Your task to perform on an android device: find which apps use the phone's location Image 0: 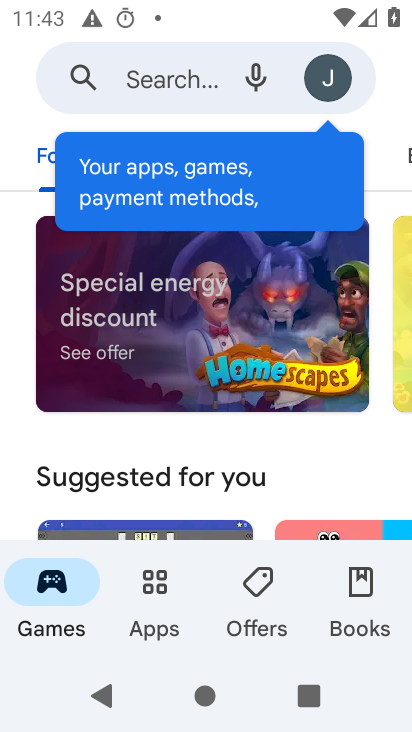
Step 0: press back button
Your task to perform on an android device: find which apps use the phone's location Image 1: 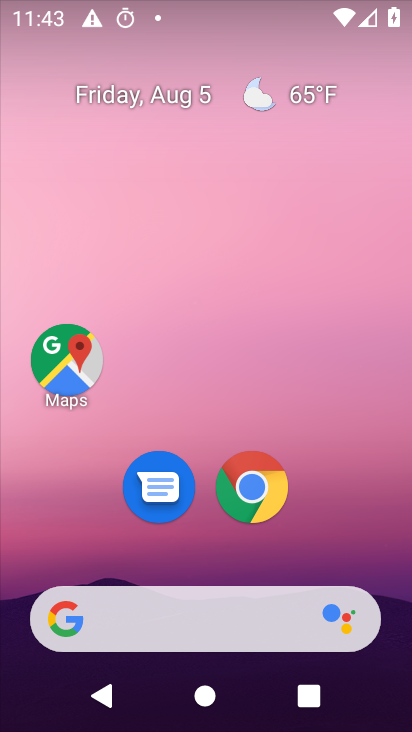
Step 1: drag from (186, 569) to (261, 103)
Your task to perform on an android device: find which apps use the phone's location Image 2: 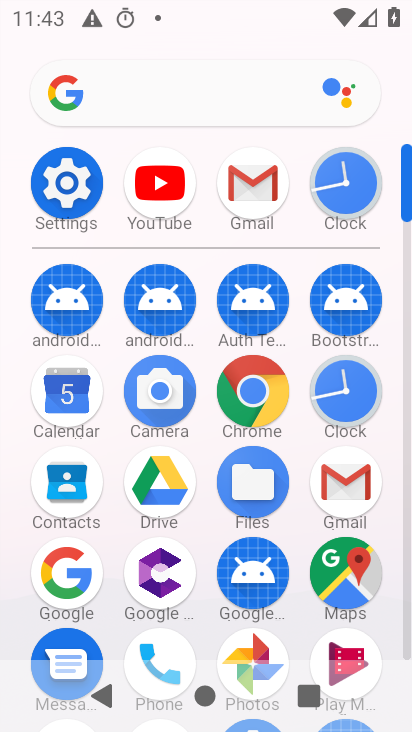
Step 2: click (68, 181)
Your task to perform on an android device: find which apps use the phone's location Image 3: 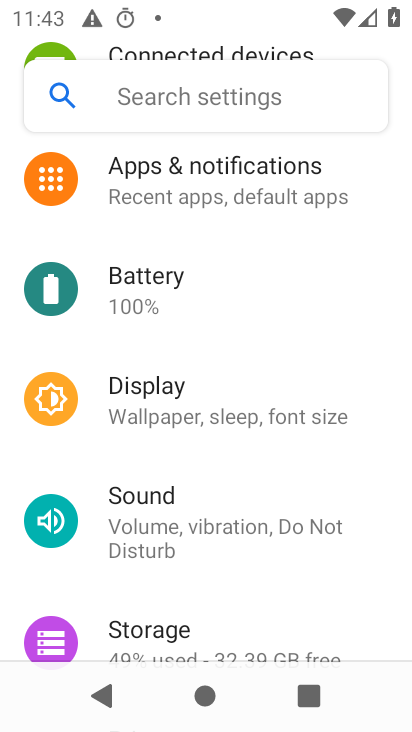
Step 3: drag from (252, 257) to (217, 706)
Your task to perform on an android device: find which apps use the phone's location Image 4: 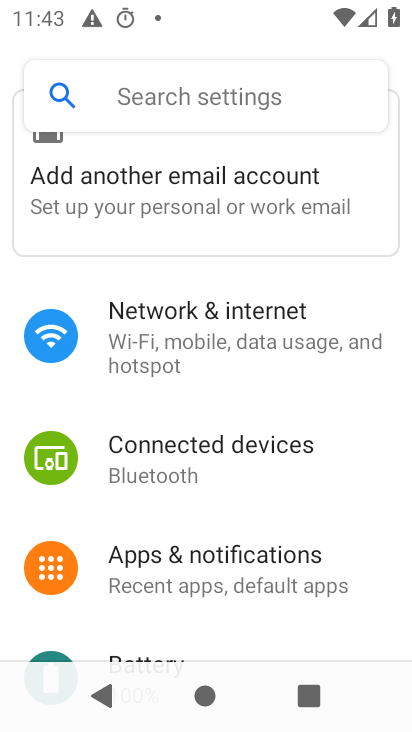
Step 4: drag from (221, 588) to (294, 150)
Your task to perform on an android device: find which apps use the phone's location Image 5: 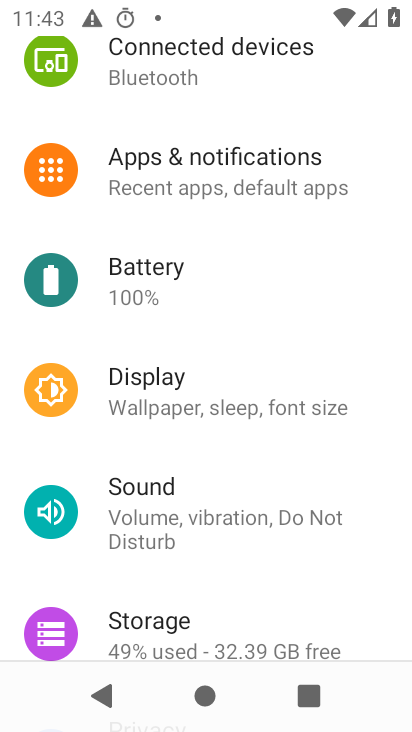
Step 5: drag from (173, 565) to (253, 105)
Your task to perform on an android device: find which apps use the phone's location Image 6: 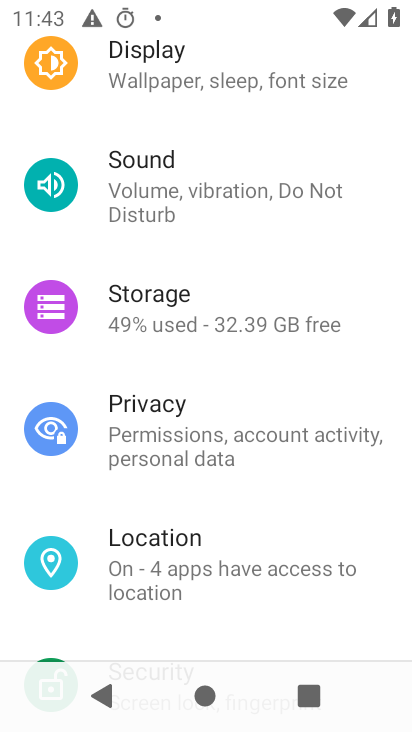
Step 6: click (199, 560)
Your task to perform on an android device: find which apps use the phone's location Image 7: 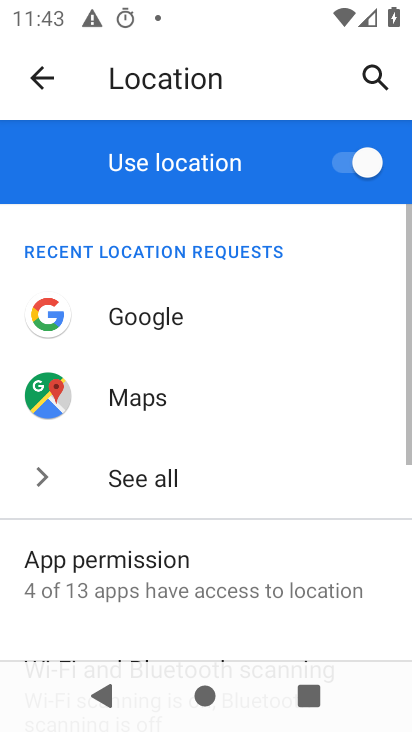
Step 7: click (163, 567)
Your task to perform on an android device: find which apps use the phone's location Image 8: 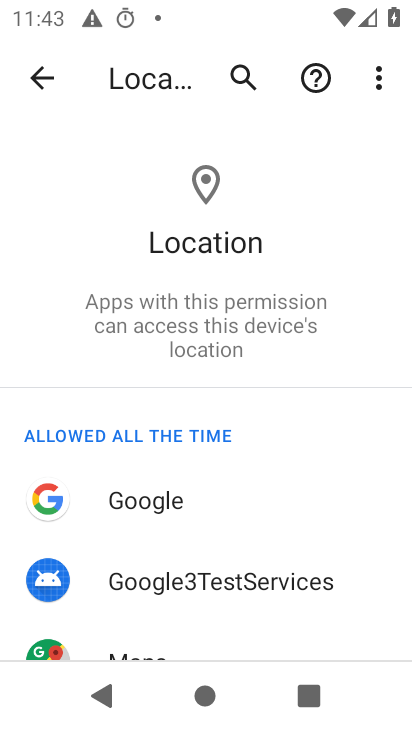
Step 8: task complete